Your task to perform on an android device: open app "VLC for Android" (install if not already installed) Image 0: 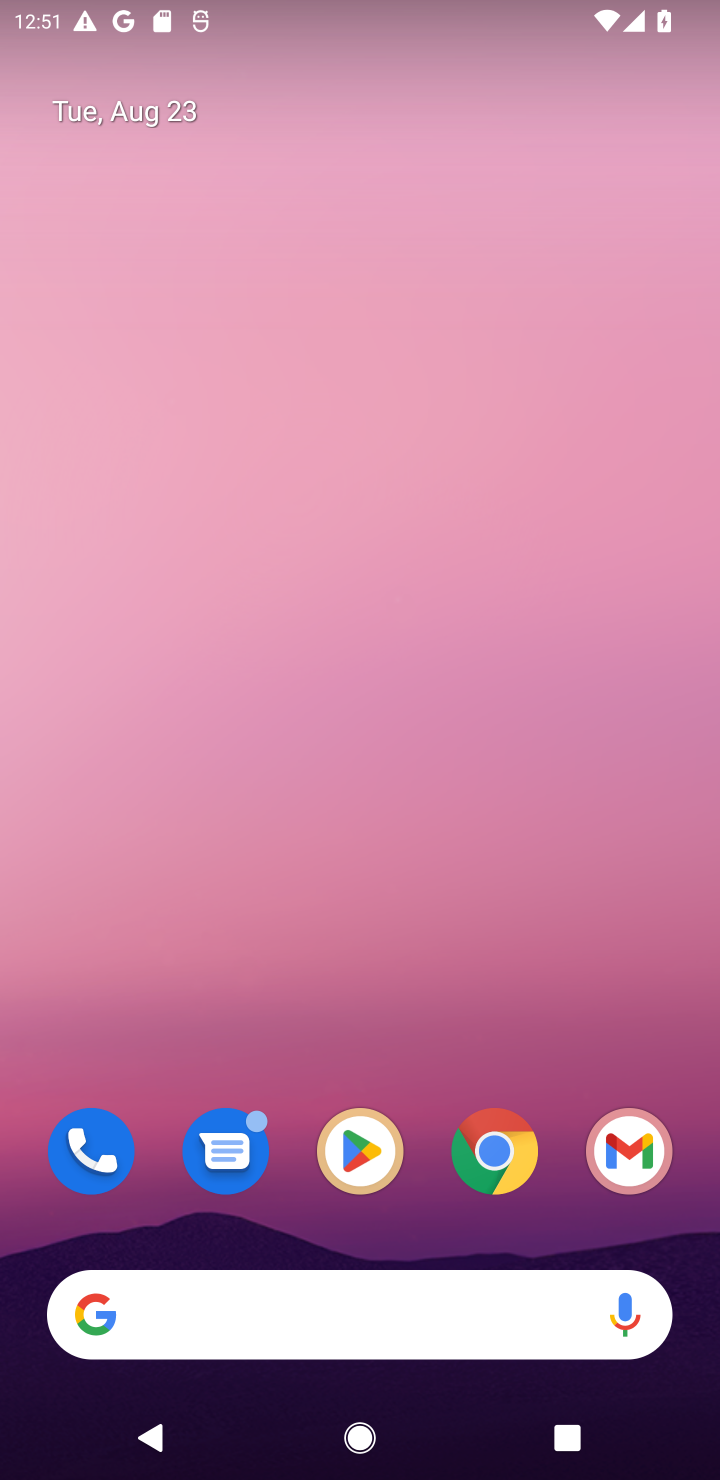
Step 0: click (373, 1158)
Your task to perform on an android device: open app "VLC for Android" (install if not already installed) Image 1: 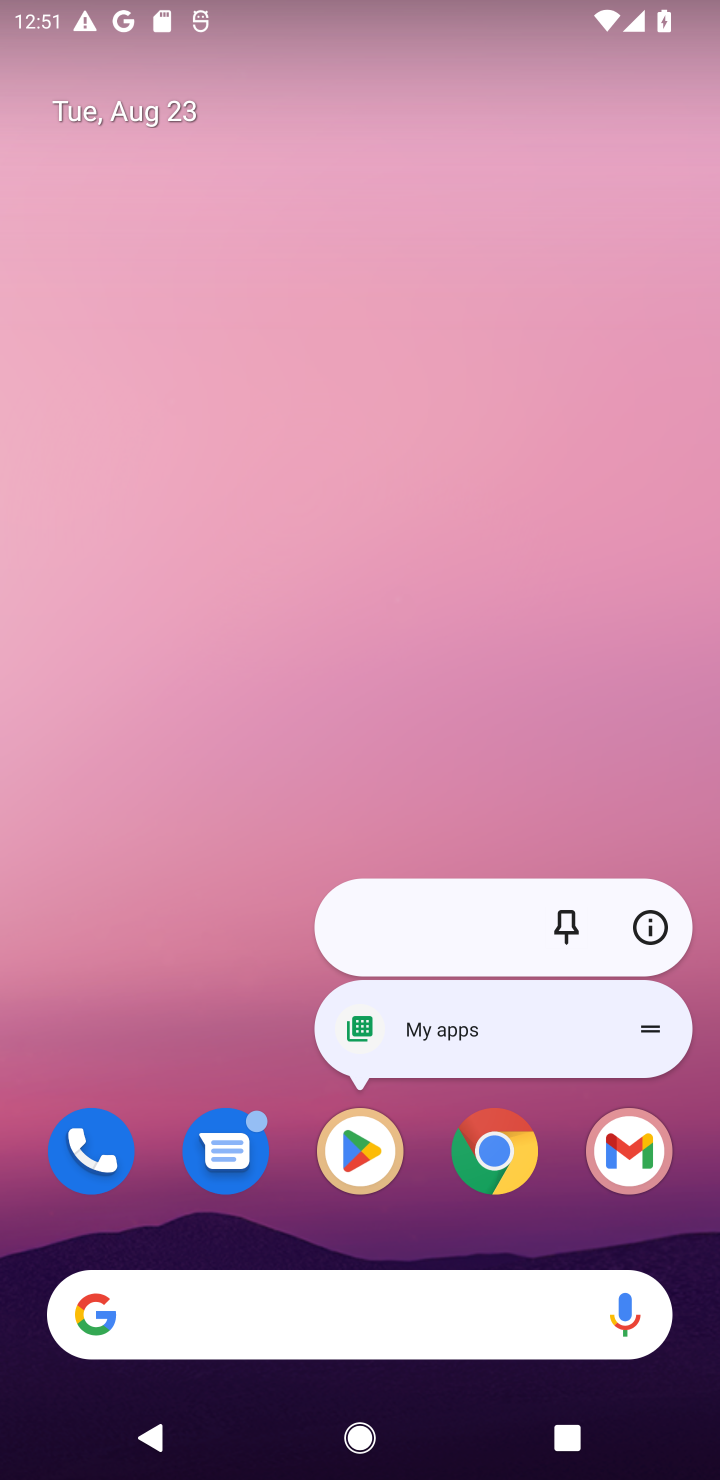
Step 1: click (373, 1158)
Your task to perform on an android device: open app "VLC for Android" (install if not already installed) Image 2: 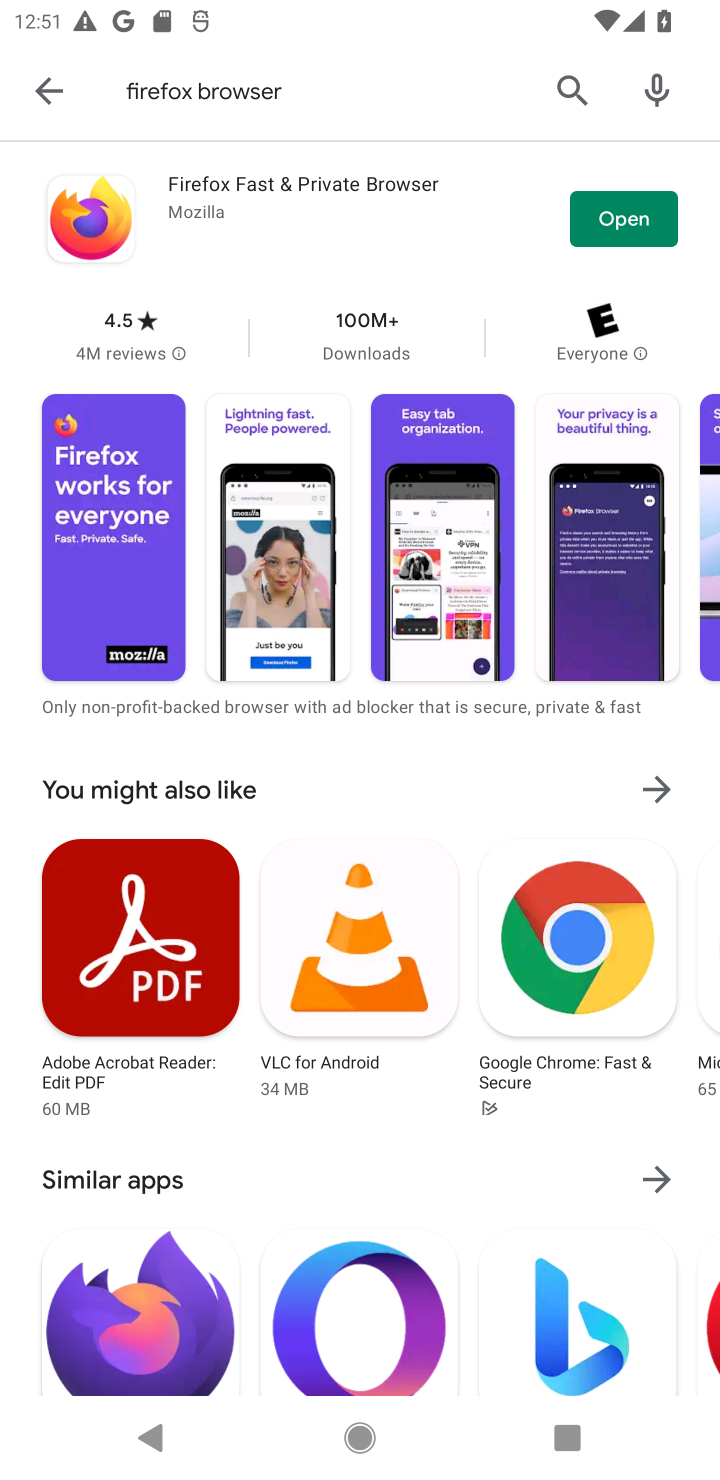
Step 2: click (563, 97)
Your task to perform on an android device: open app "VLC for Android" (install if not already installed) Image 3: 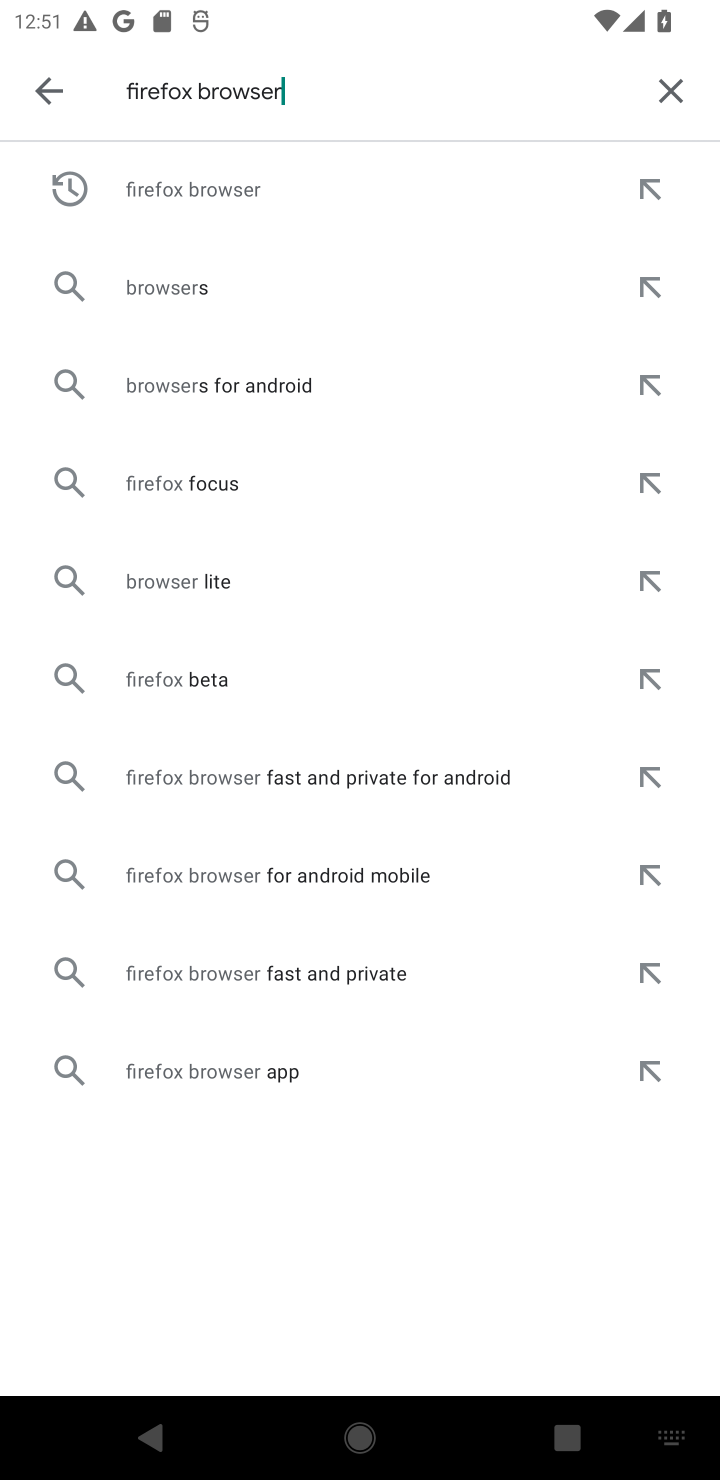
Step 3: click (664, 85)
Your task to perform on an android device: open app "VLC for Android" (install if not already installed) Image 4: 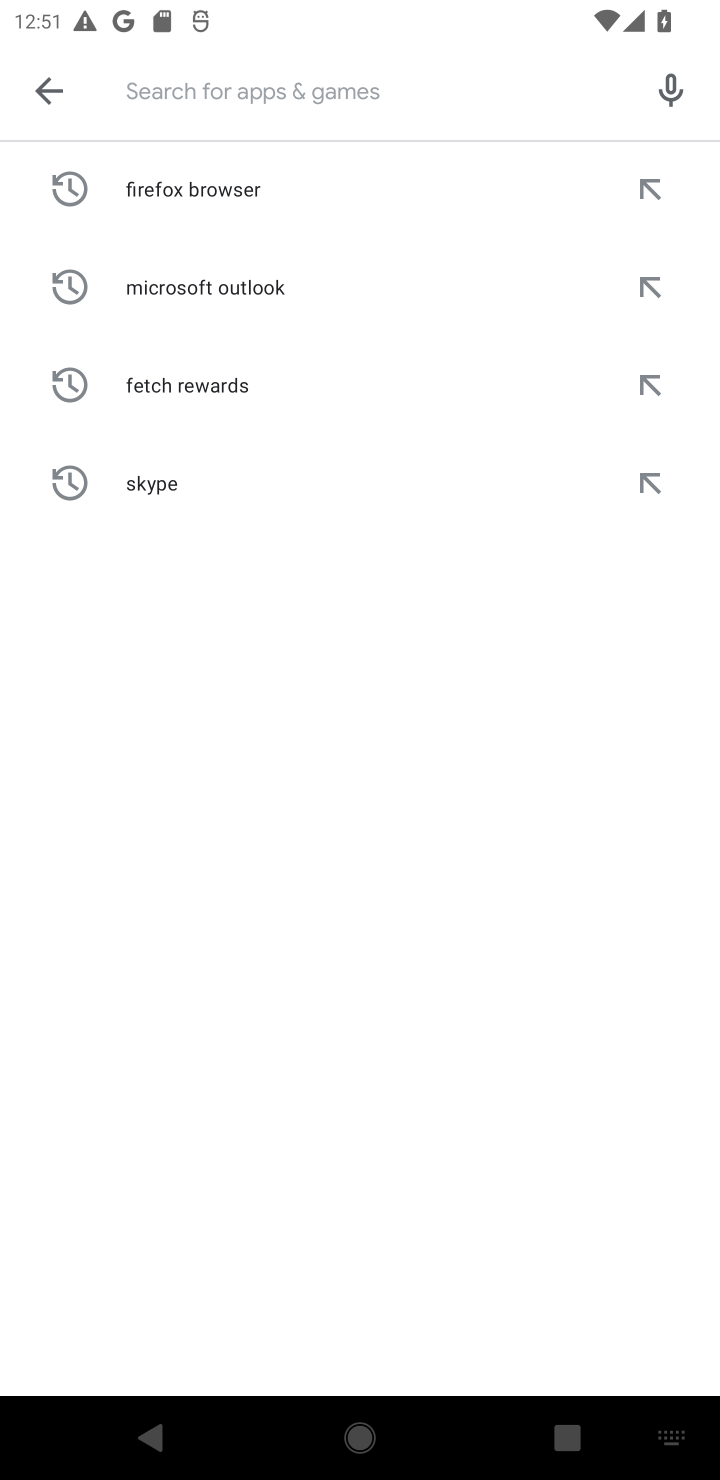
Step 4: type "VLC for Android"
Your task to perform on an android device: open app "VLC for Android" (install if not already installed) Image 5: 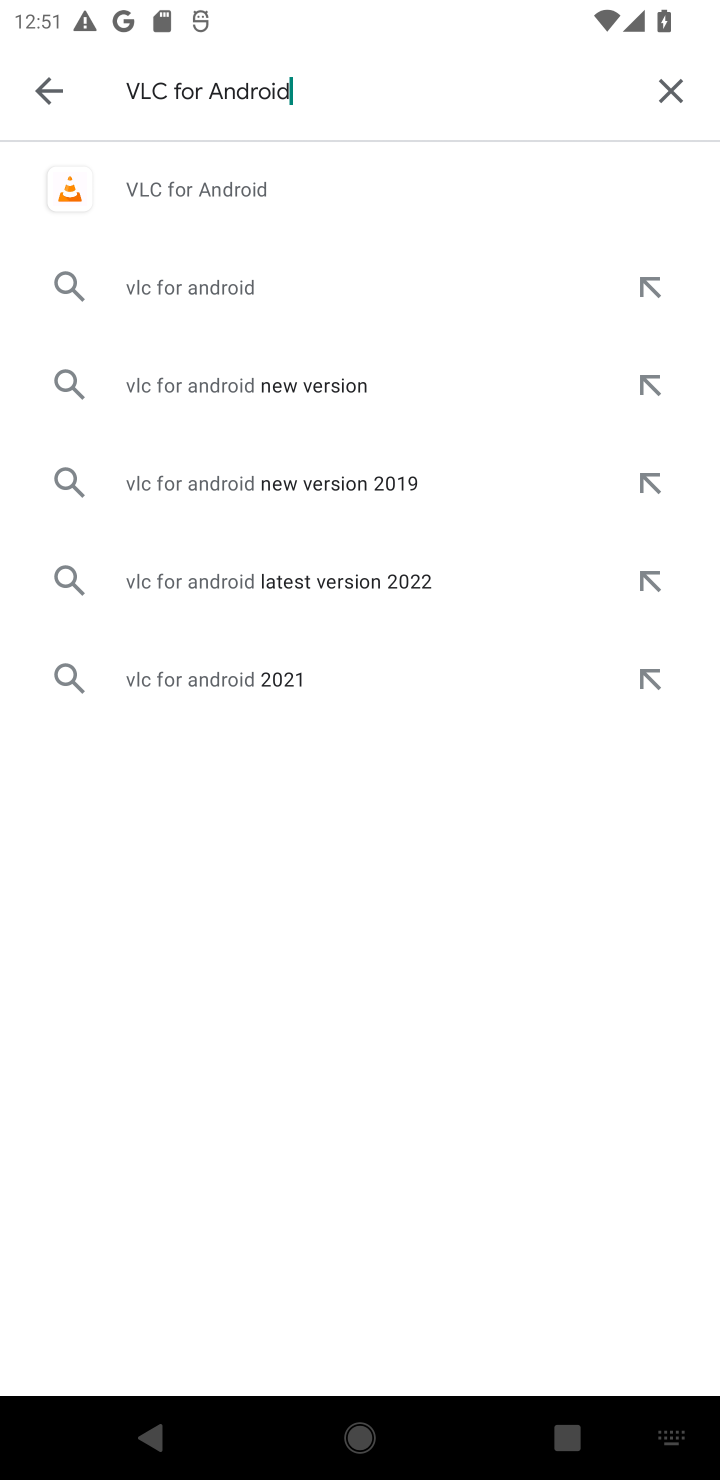
Step 5: click (270, 192)
Your task to perform on an android device: open app "VLC for Android" (install if not already installed) Image 6: 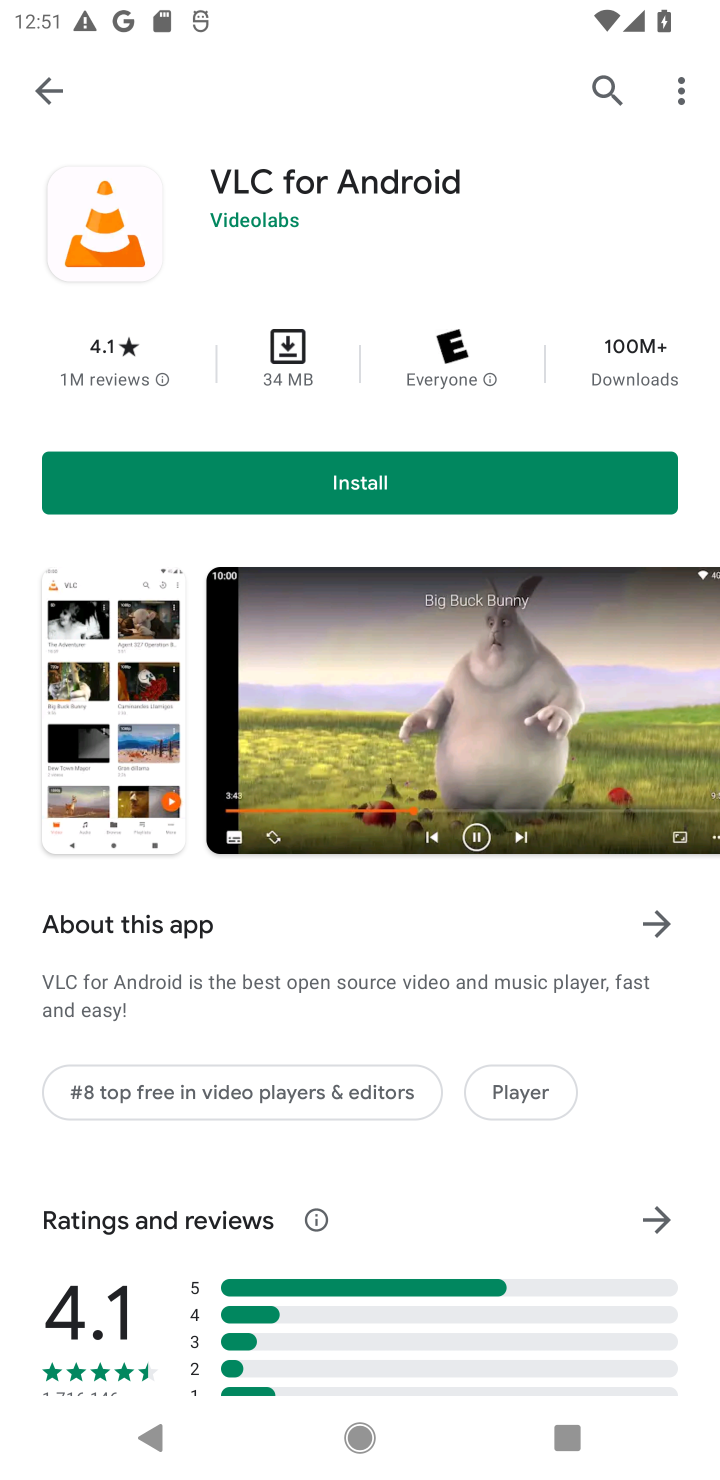
Step 6: click (410, 482)
Your task to perform on an android device: open app "VLC for Android" (install if not already installed) Image 7: 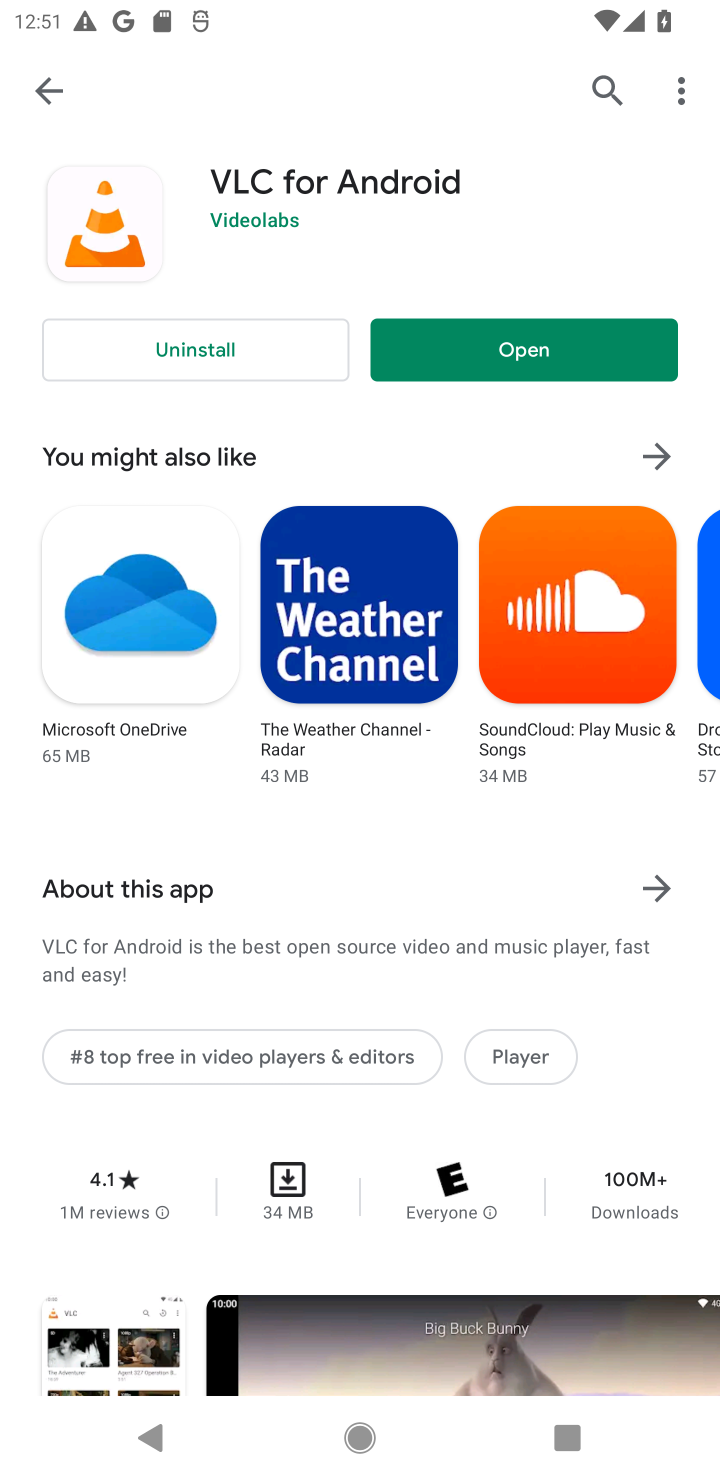
Step 7: click (543, 349)
Your task to perform on an android device: open app "VLC for Android" (install if not already installed) Image 8: 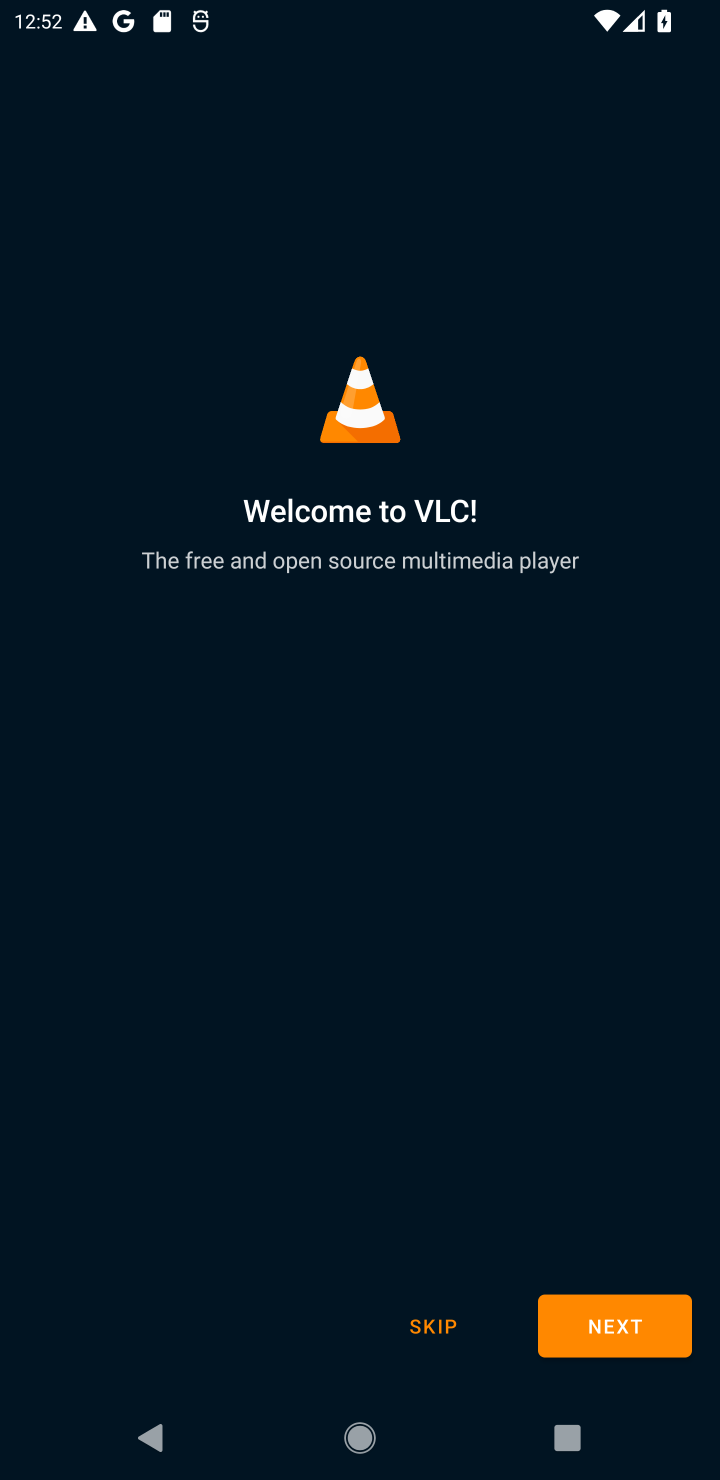
Step 8: task complete